Your task to perform on an android device: check storage Image 0: 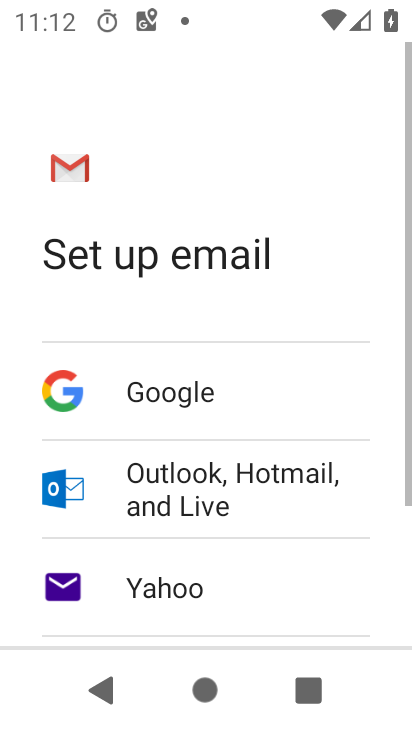
Step 0: press back button
Your task to perform on an android device: check storage Image 1: 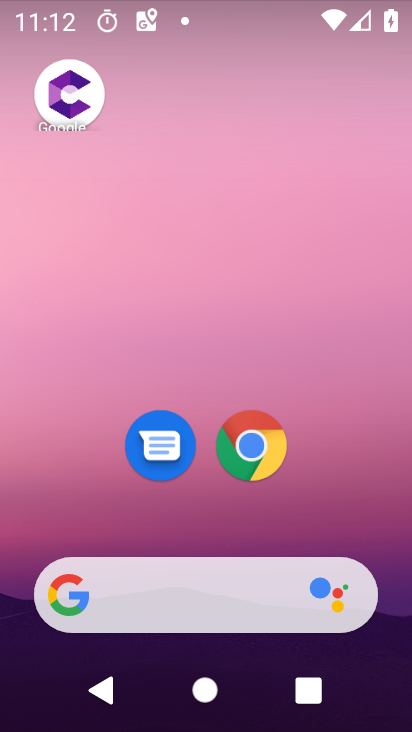
Step 1: drag from (235, 539) to (260, 107)
Your task to perform on an android device: check storage Image 2: 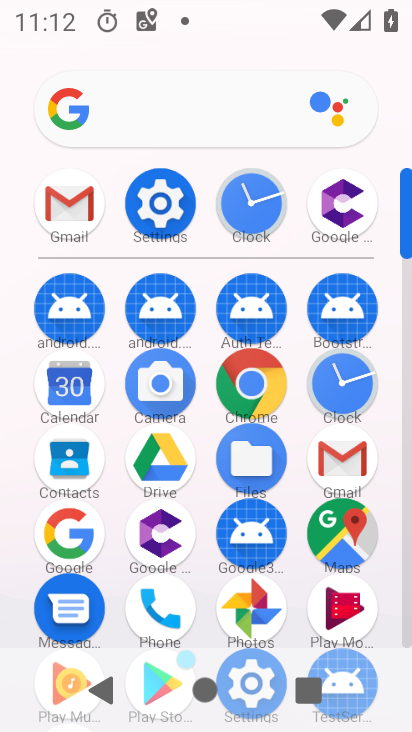
Step 2: click (154, 199)
Your task to perform on an android device: check storage Image 3: 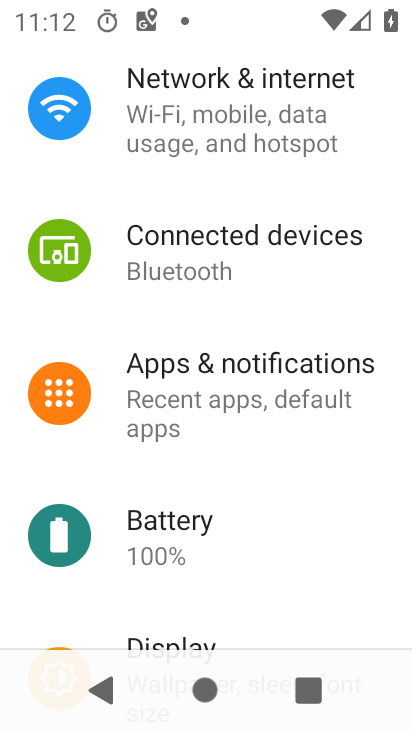
Step 3: drag from (216, 200) to (218, 678)
Your task to perform on an android device: check storage Image 4: 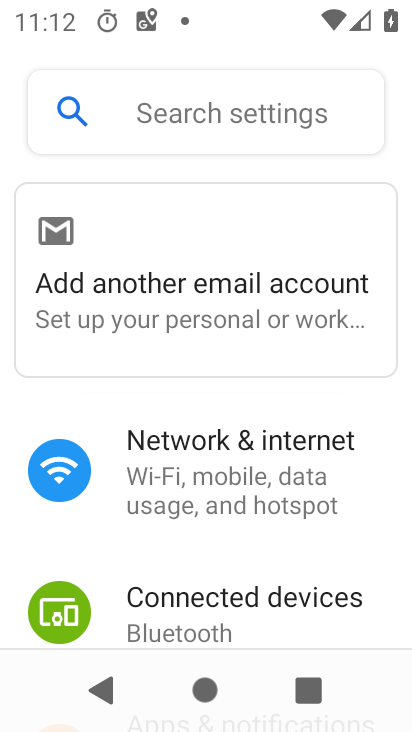
Step 4: drag from (221, 510) to (319, 51)
Your task to perform on an android device: check storage Image 5: 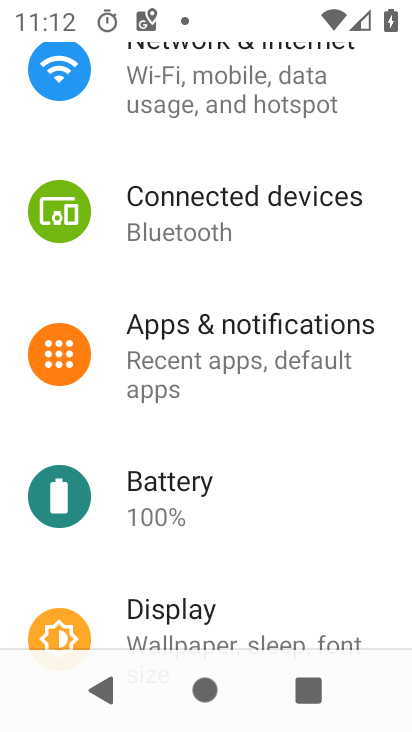
Step 5: drag from (216, 581) to (284, 122)
Your task to perform on an android device: check storage Image 6: 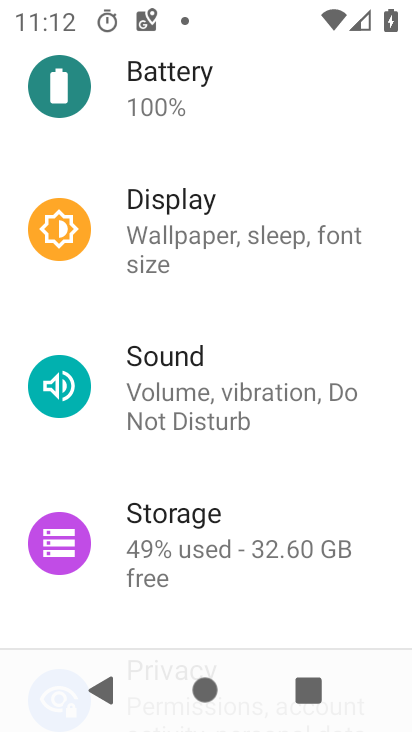
Step 6: click (160, 539)
Your task to perform on an android device: check storage Image 7: 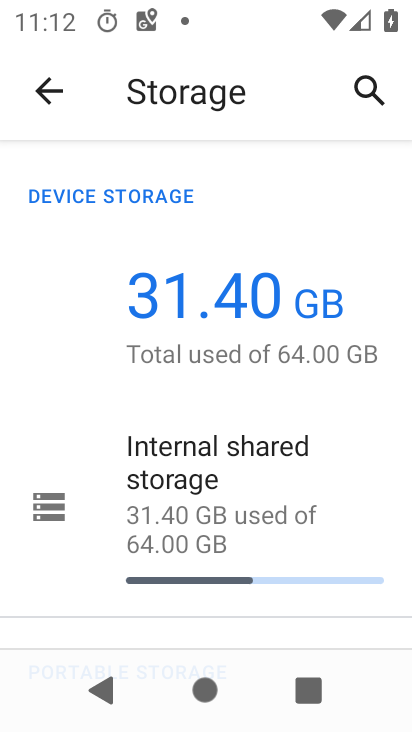
Step 7: task complete